Your task to perform on an android device: check google app version Image 0: 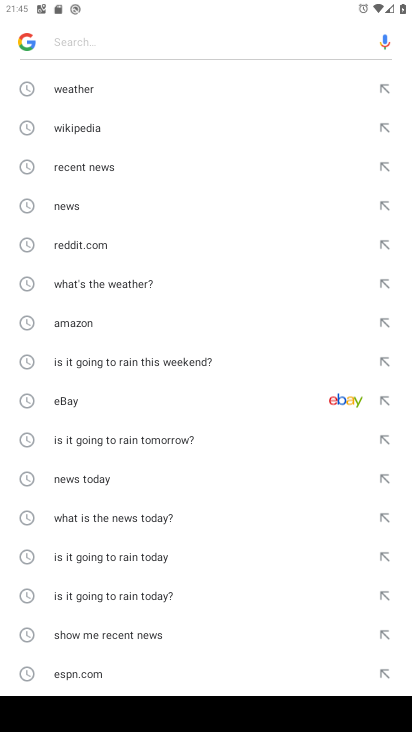
Step 0: press home button
Your task to perform on an android device: check google app version Image 1: 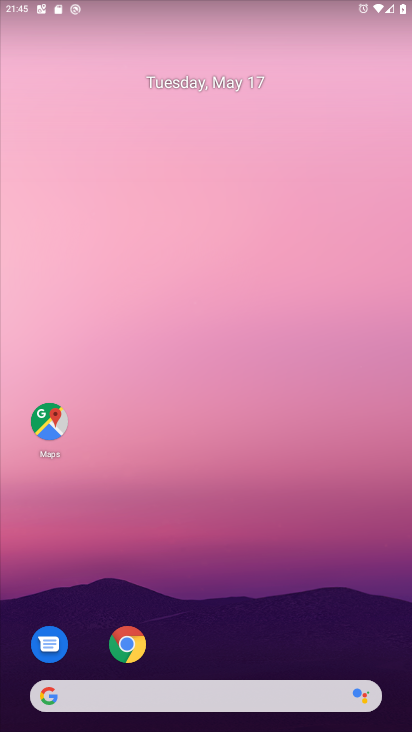
Step 1: drag from (203, 637) to (253, 141)
Your task to perform on an android device: check google app version Image 2: 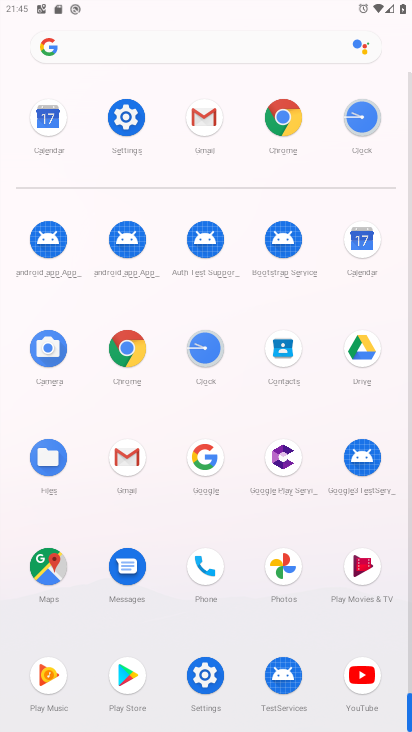
Step 2: click (213, 453)
Your task to perform on an android device: check google app version Image 3: 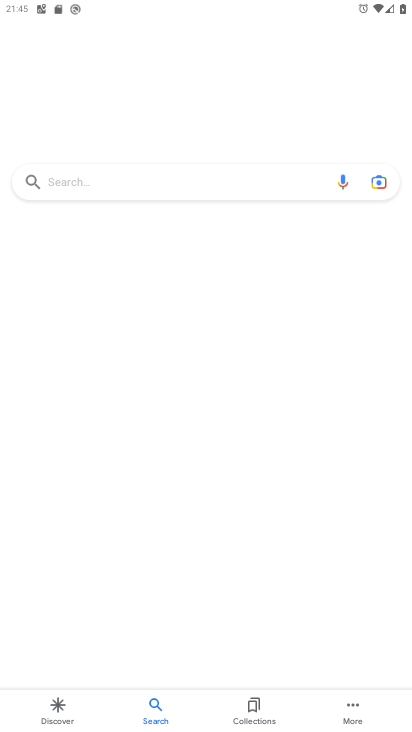
Step 3: click (343, 705)
Your task to perform on an android device: check google app version Image 4: 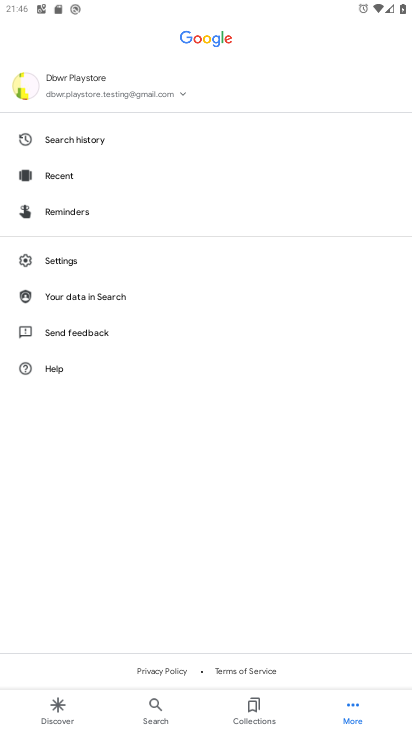
Step 4: click (62, 254)
Your task to perform on an android device: check google app version Image 5: 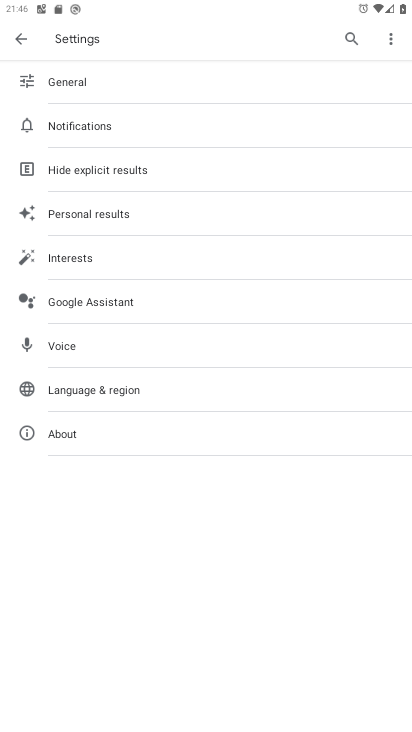
Step 5: click (73, 438)
Your task to perform on an android device: check google app version Image 6: 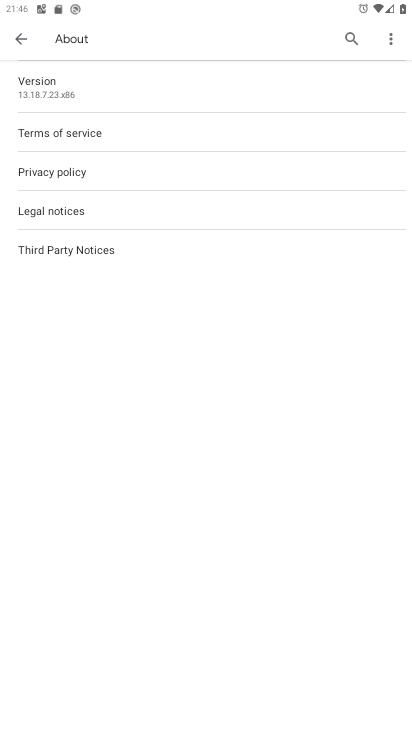
Step 6: task complete